Your task to perform on an android device: Search for a new desk on Ikea Image 0: 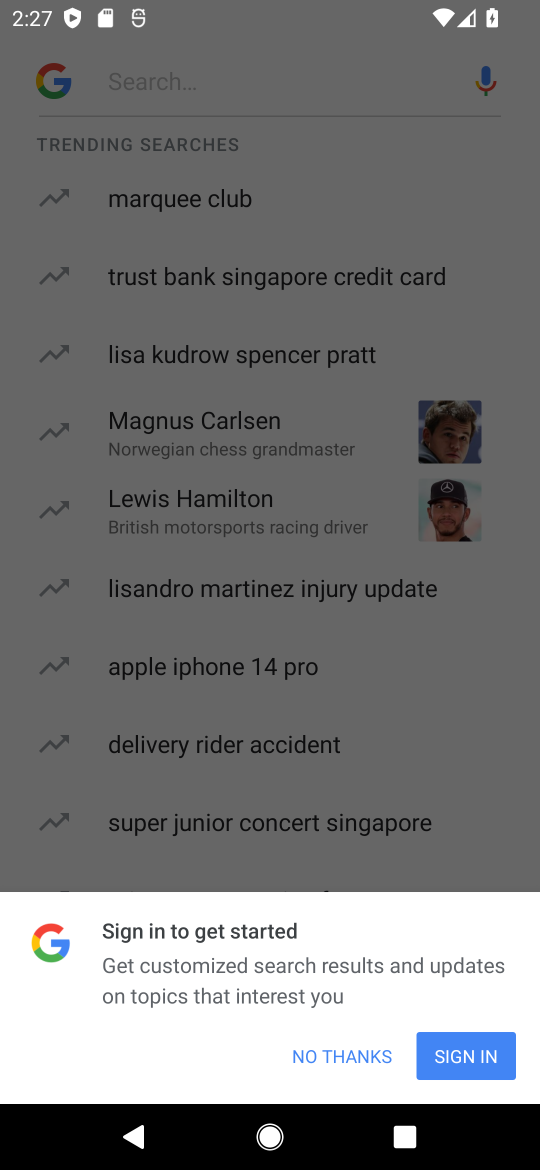
Step 0: click (349, 1048)
Your task to perform on an android device: Search for a new desk on Ikea Image 1: 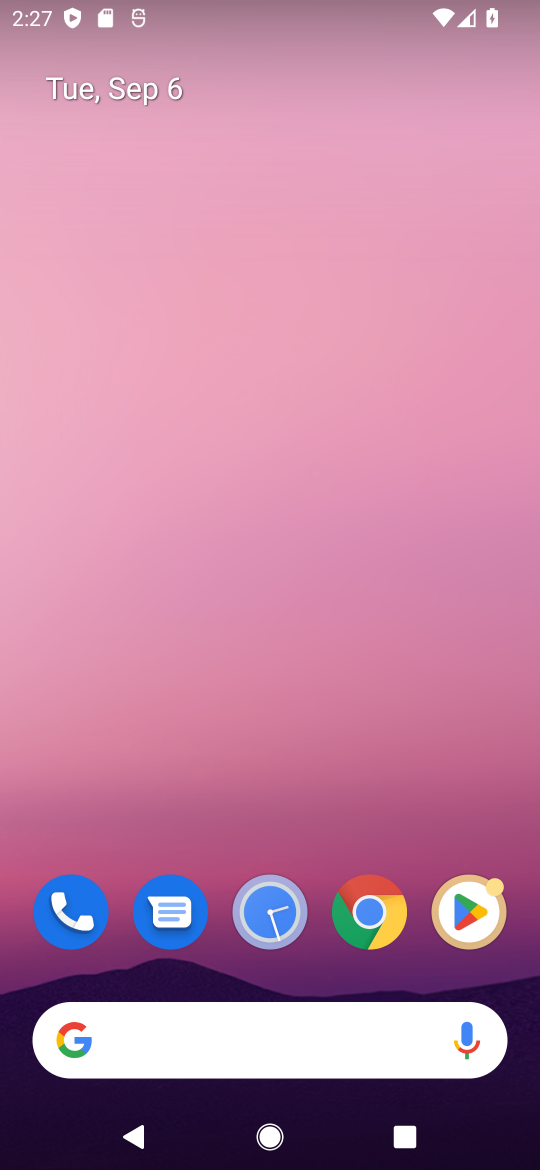
Step 1: drag from (337, 815) to (330, 49)
Your task to perform on an android device: Search for a new desk on Ikea Image 2: 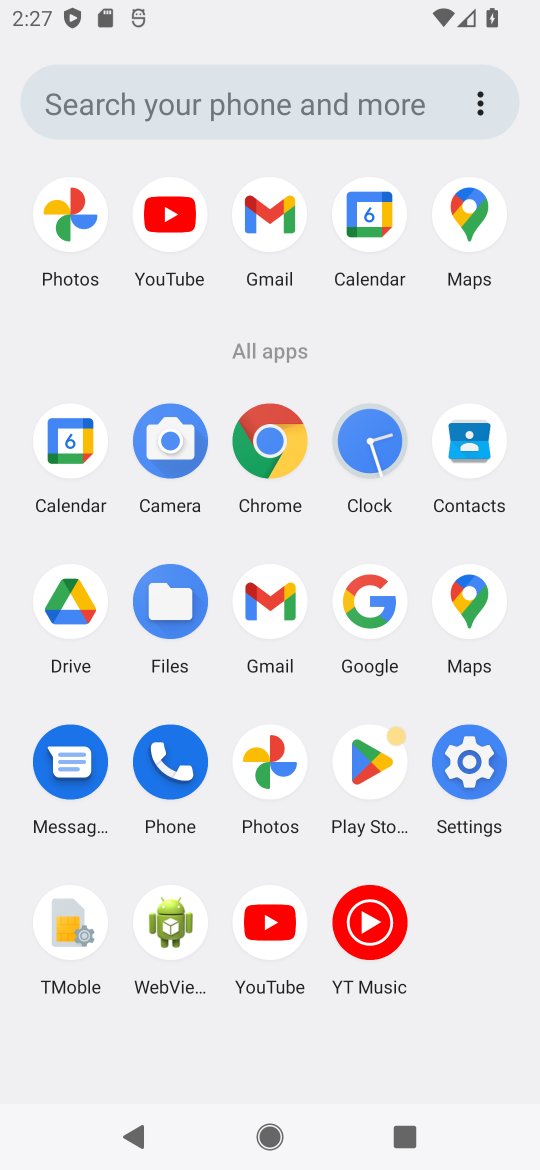
Step 2: click (264, 432)
Your task to perform on an android device: Search for a new desk on Ikea Image 3: 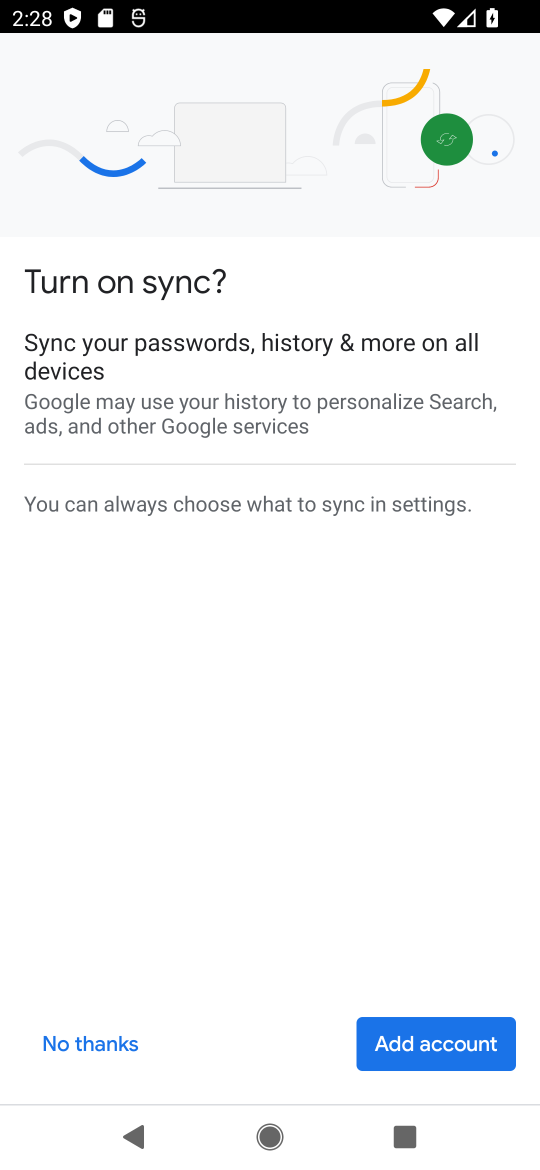
Step 3: click (454, 1045)
Your task to perform on an android device: Search for a new desk on Ikea Image 4: 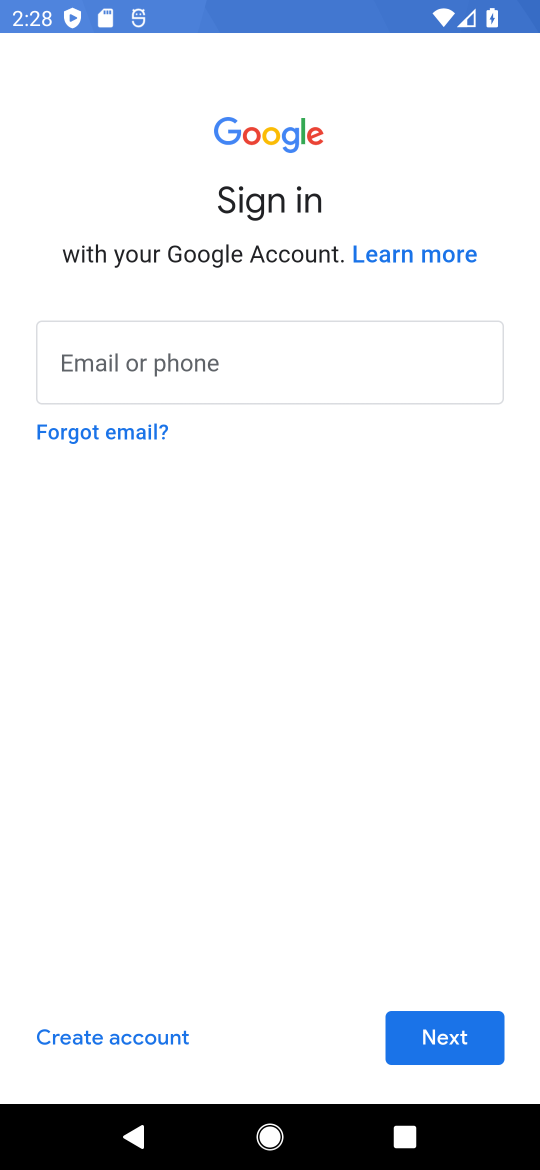
Step 4: task complete